Your task to perform on an android device: turn off location Image 0: 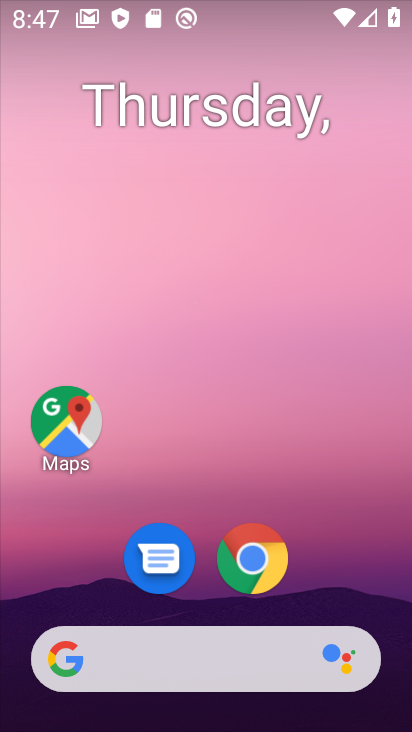
Step 0: drag from (392, 628) to (275, 53)
Your task to perform on an android device: turn off location Image 1: 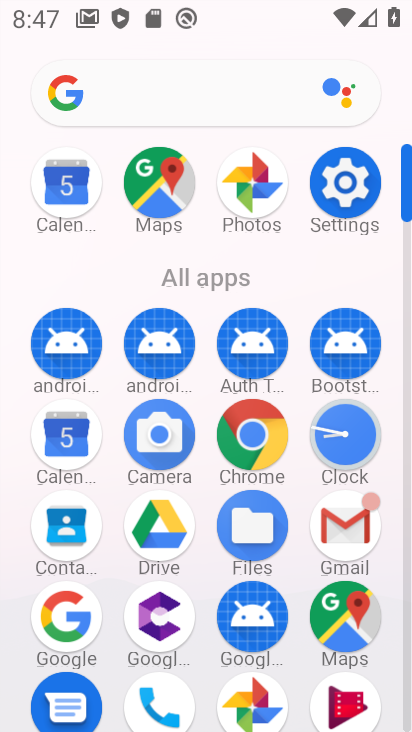
Step 1: click (406, 703)
Your task to perform on an android device: turn off location Image 2: 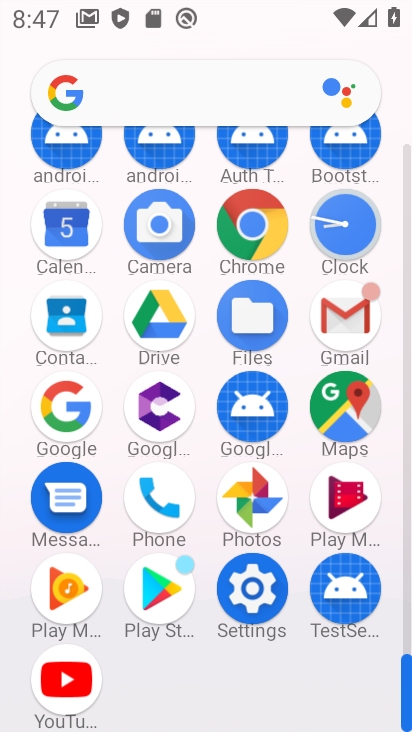
Step 2: click (254, 586)
Your task to perform on an android device: turn off location Image 3: 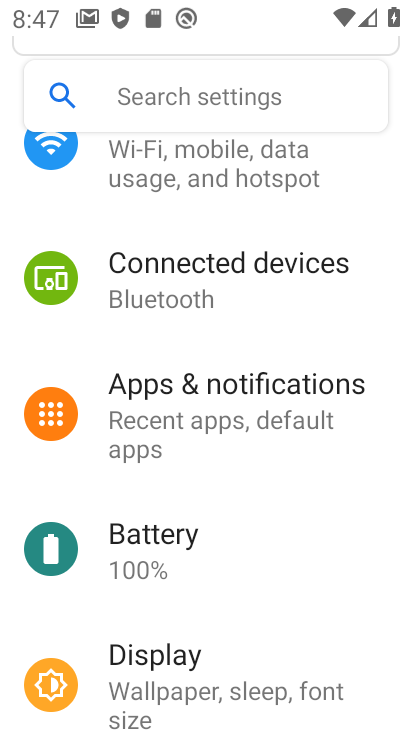
Step 3: drag from (356, 652) to (329, 290)
Your task to perform on an android device: turn off location Image 4: 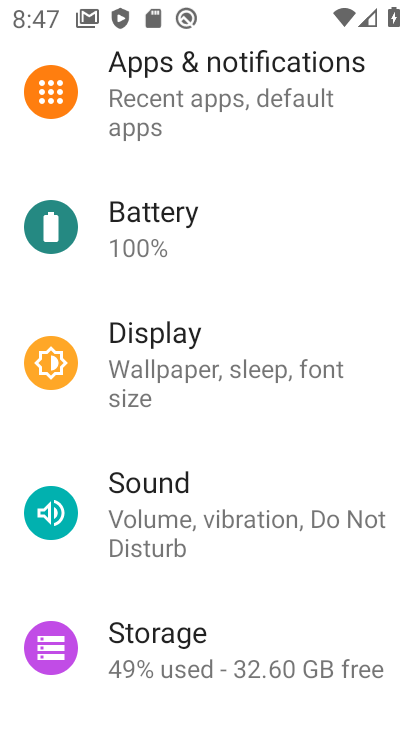
Step 4: drag from (338, 607) to (332, 157)
Your task to perform on an android device: turn off location Image 5: 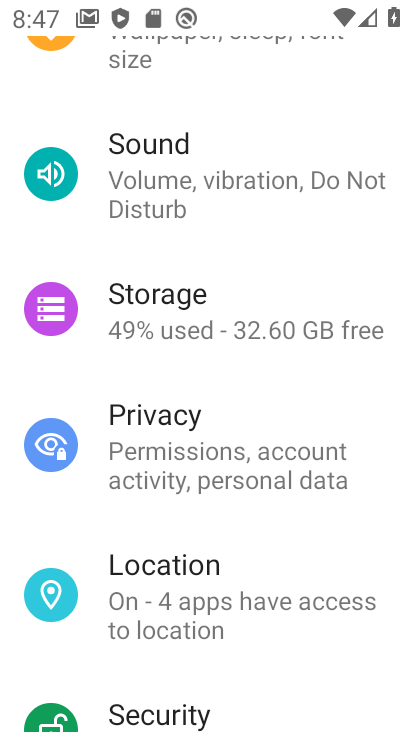
Step 5: click (154, 582)
Your task to perform on an android device: turn off location Image 6: 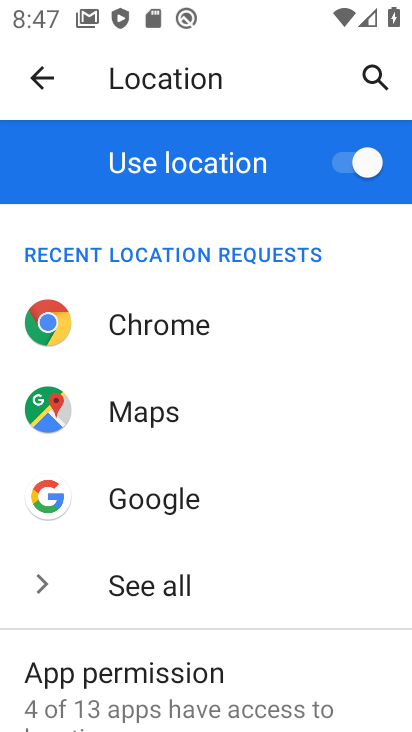
Step 6: click (346, 164)
Your task to perform on an android device: turn off location Image 7: 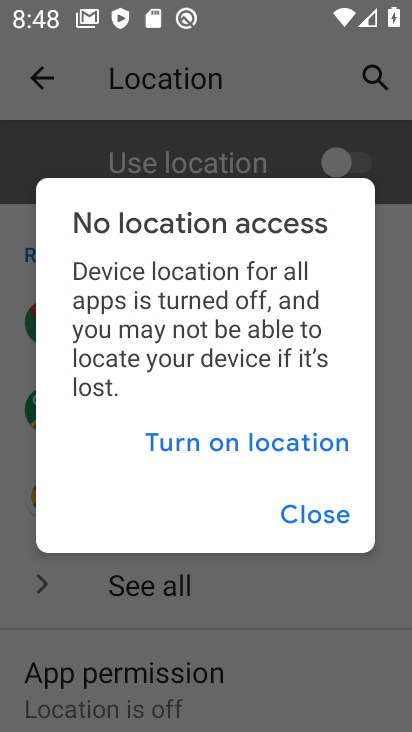
Step 7: task complete